Your task to perform on an android device: Open calendar and show me the third week of next month Image 0: 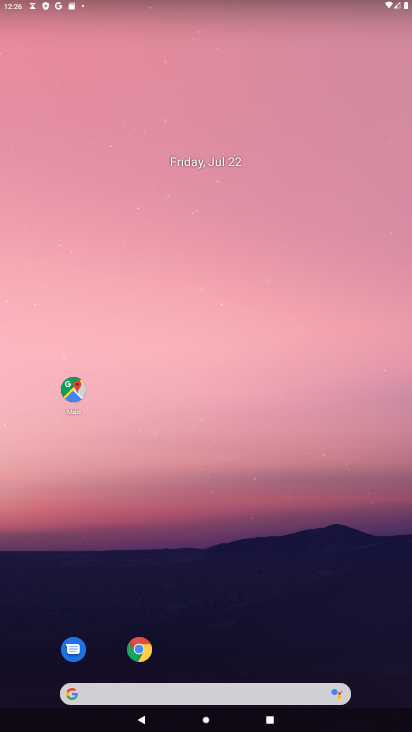
Step 0: drag from (295, 665) to (209, 227)
Your task to perform on an android device: Open calendar and show me the third week of next month Image 1: 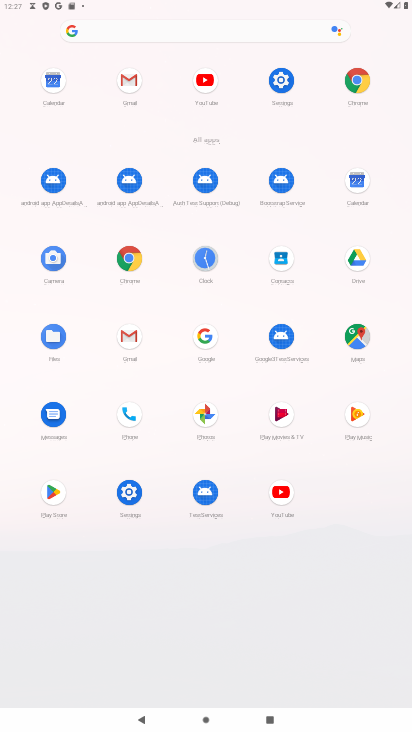
Step 1: click (365, 186)
Your task to perform on an android device: Open calendar and show me the third week of next month Image 2: 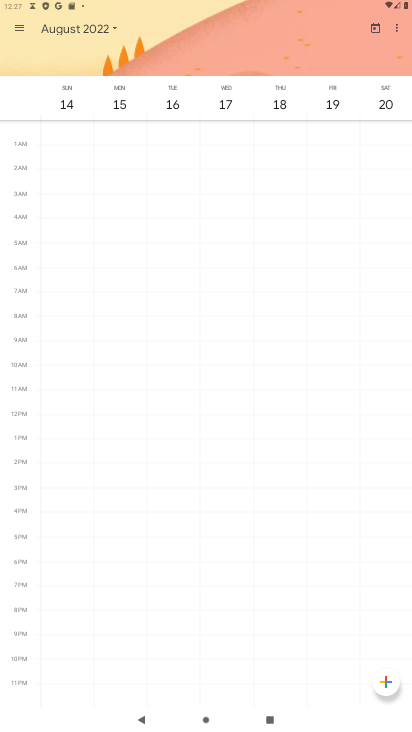
Step 2: click (90, 32)
Your task to perform on an android device: Open calendar and show me the third week of next month Image 3: 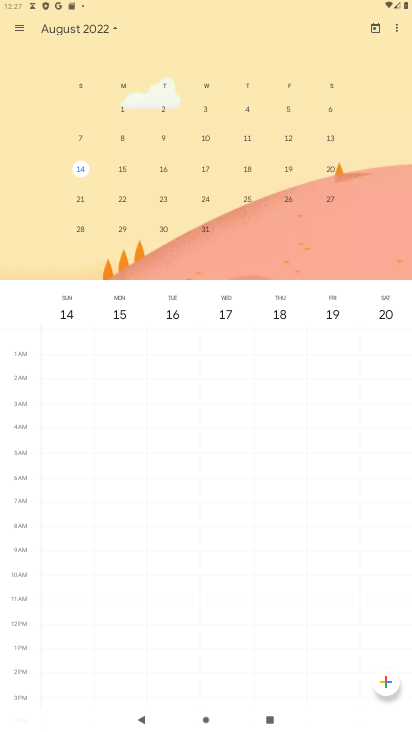
Step 3: task complete